Your task to perform on an android device: Search for Mexican restaurants on Maps Image 0: 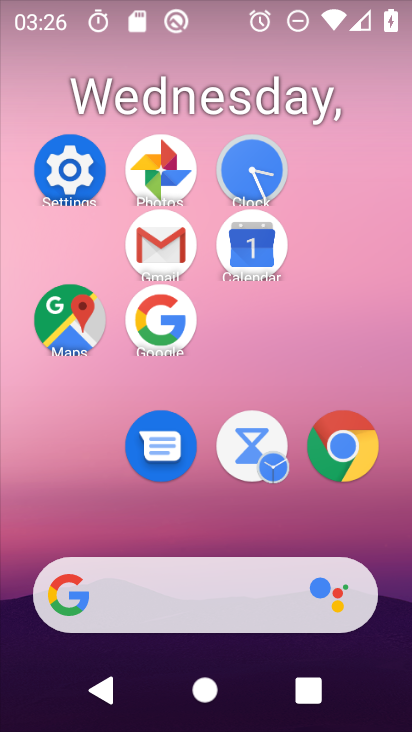
Step 0: click (62, 324)
Your task to perform on an android device: Search for Mexican restaurants on Maps Image 1: 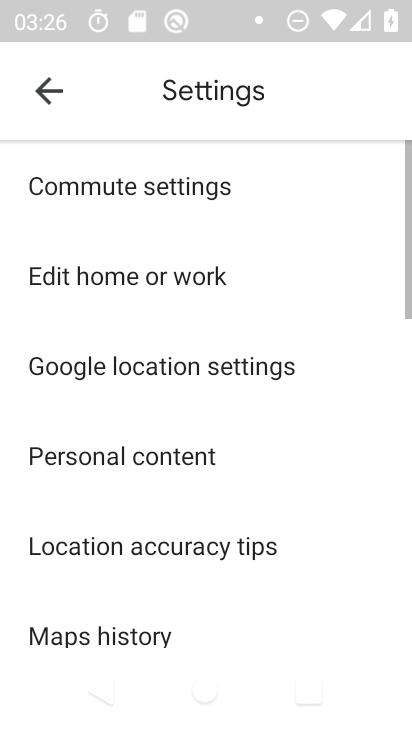
Step 1: click (44, 104)
Your task to perform on an android device: Search for Mexican restaurants on Maps Image 2: 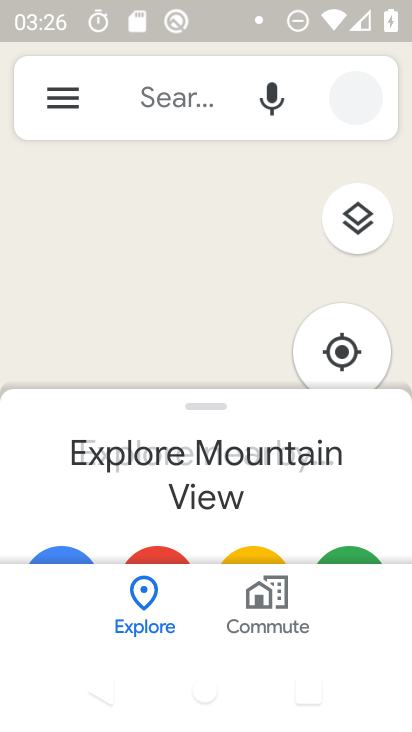
Step 2: click (44, 104)
Your task to perform on an android device: Search for Mexican restaurants on Maps Image 3: 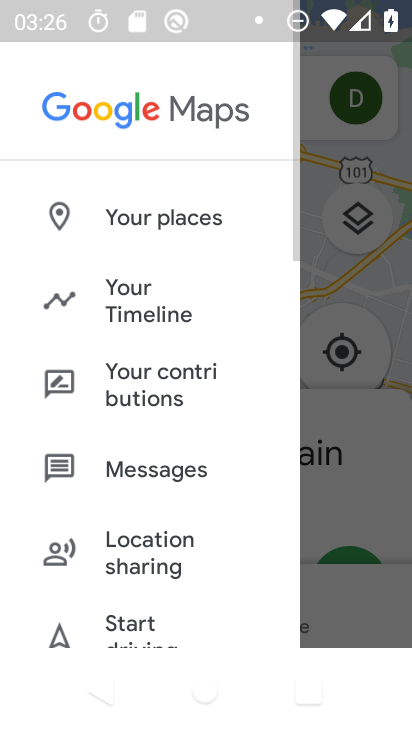
Step 3: click (322, 88)
Your task to perform on an android device: Search for Mexican restaurants on Maps Image 4: 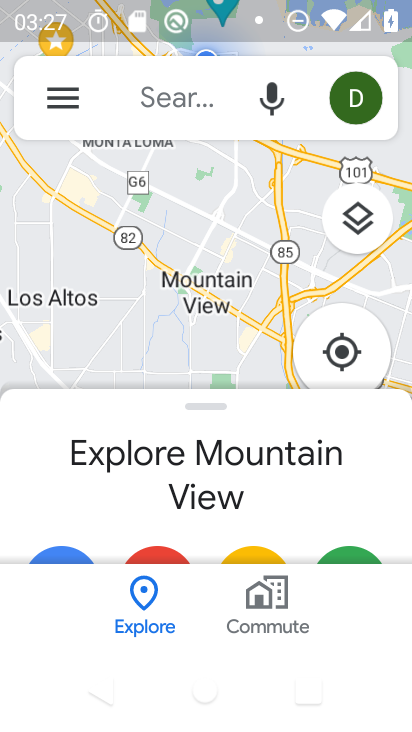
Step 4: click (218, 105)
Your task to perform on an android device: Search for Mexican restaurants on Maps Image 5: 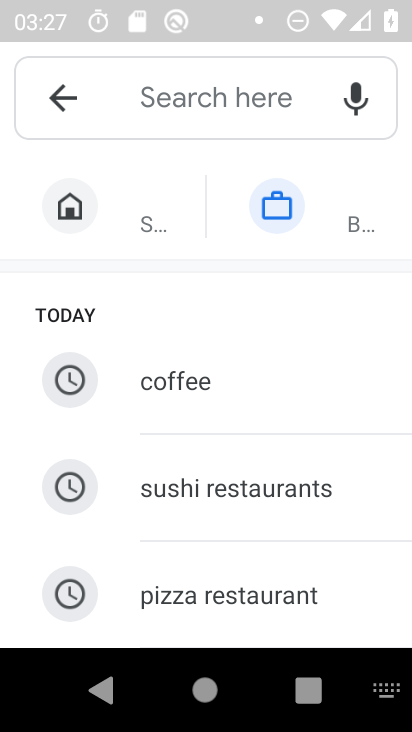
Step 5: drag from (210, 608) to (258, 205)
Your task to perform on an android device: Search for Mexican restaurants on Maps Image 6: 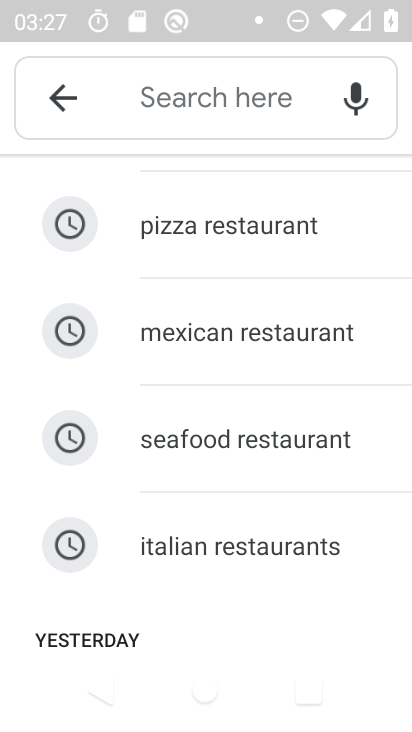
Step 6: click (255, 377)
Your task to perform on an android device: Search for Mexican restaurants on Maps Image 7: 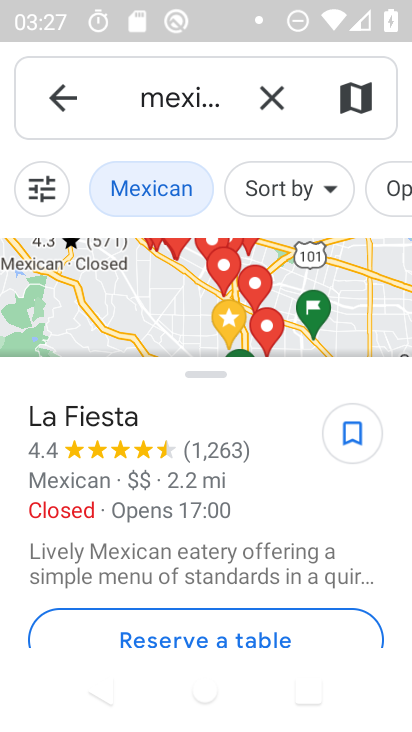
Step 7: task complete